Your task to perform on an android device: Look up the best rated hair dryer on Walmart. Image 0: 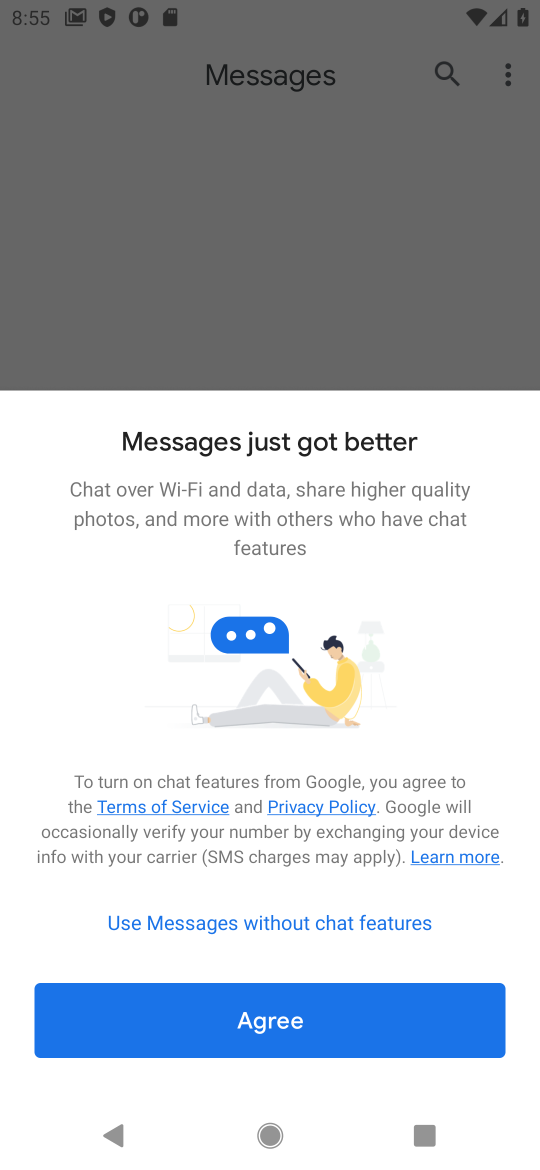
Step 0: press back button
Your task to perform on an android device: Look up the best rated hair dryer on Walmart. Image 1: 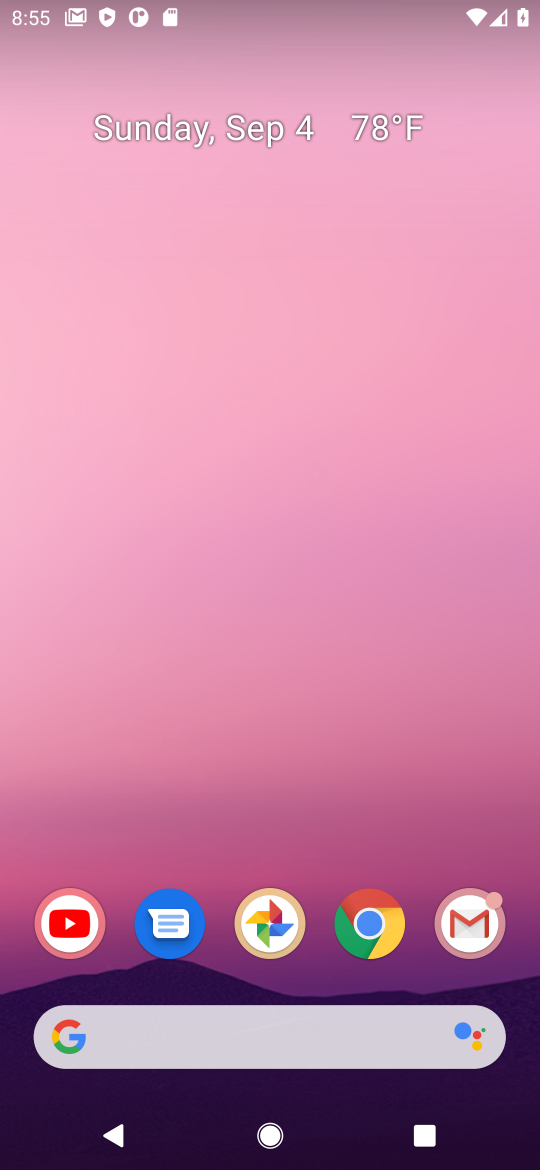
Step 1: click (350, 919)
Your task to perform on an android device: Look up the best rated hair dryer on Walmart. Image 2: 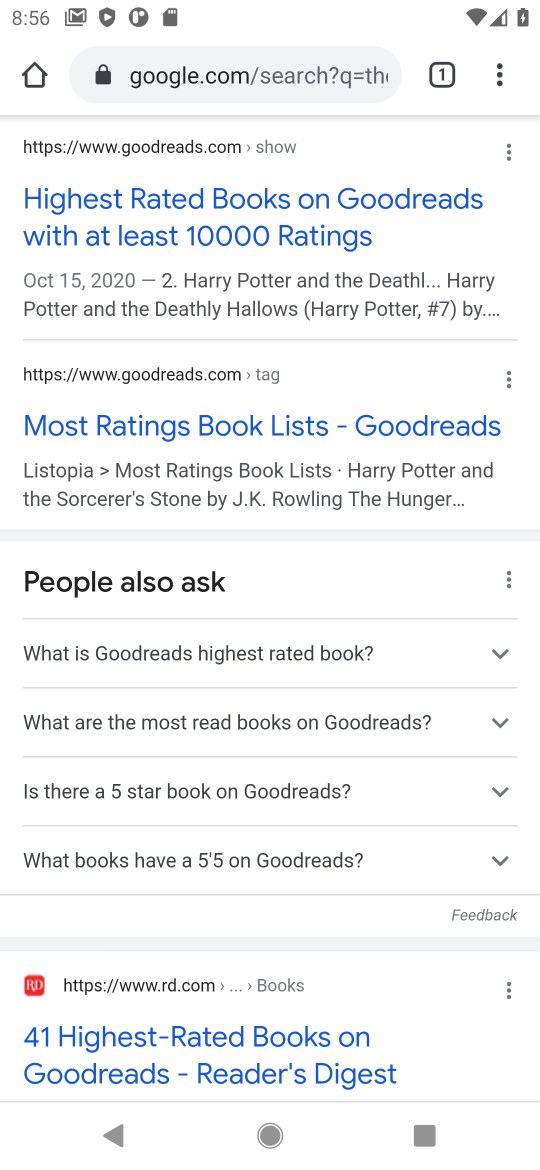
Step 2: click (161, 69)
Your task to perform on an android device: Look up the best rated hair dryer on Walmart. Image 3: 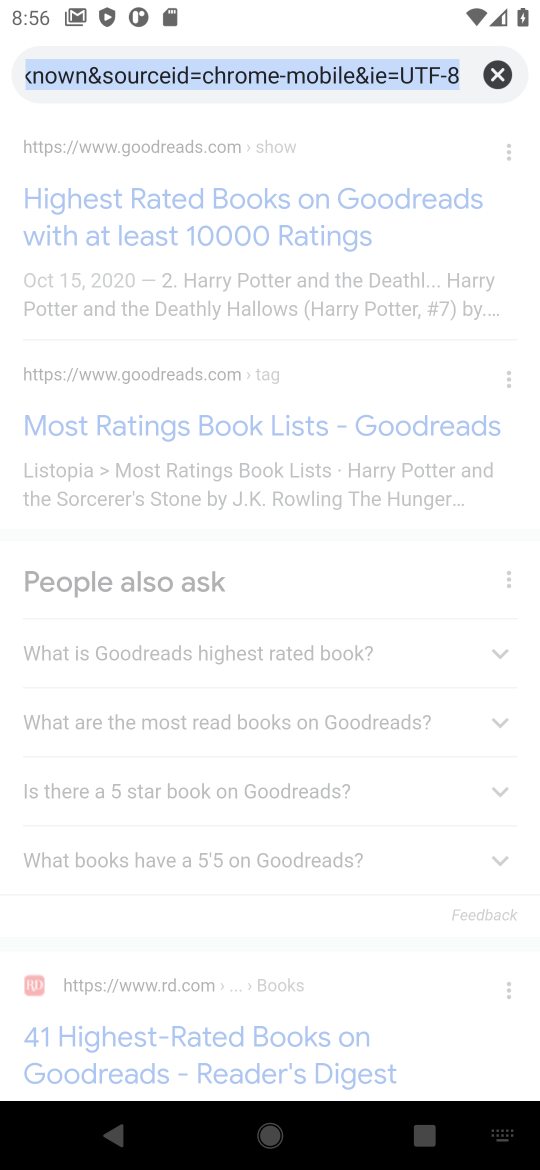
Step 3: click (492, 77)
Your task to perform on an android device: Look up the best rated hair dryer on Walmart. Image 4: 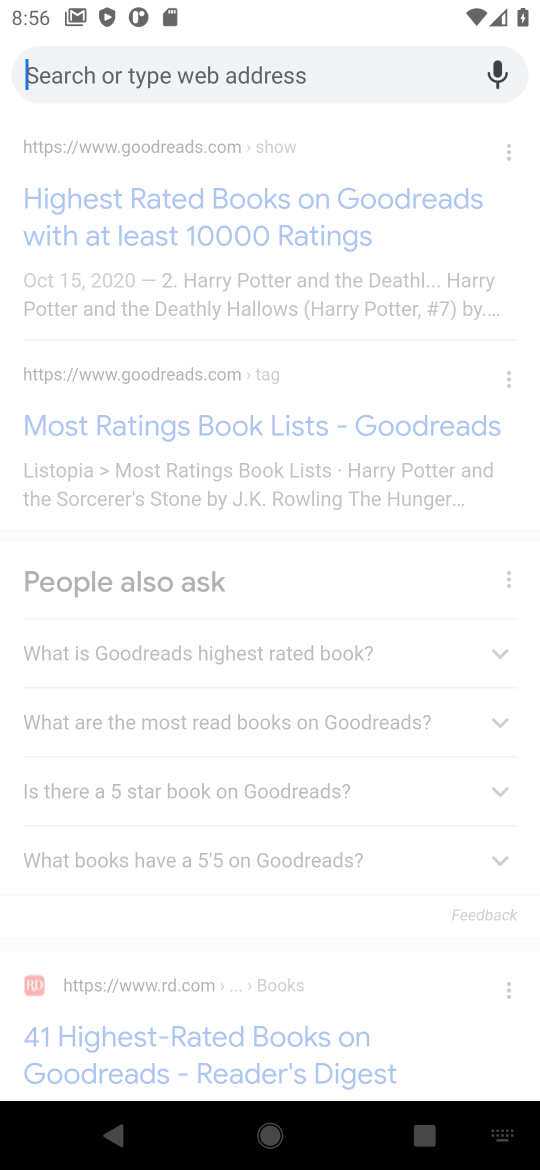
Step 4: type "the best rated hair dryer on Walmart."
Your task to perform on an android device: Look up the best rated hair dryer on Walmart. Image 5: 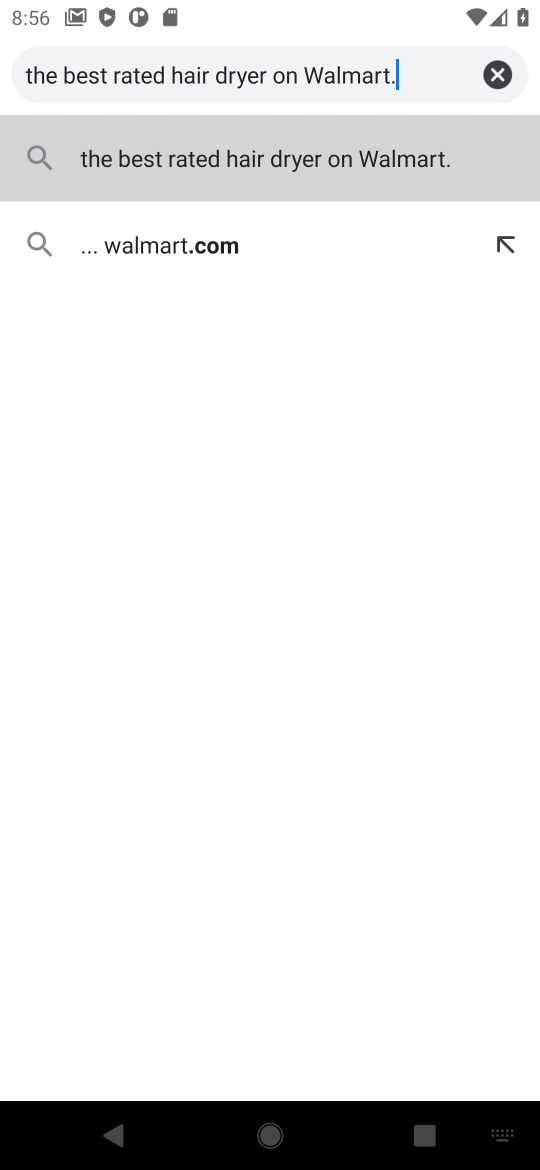
Step 5: click (174, 134)
Your task to perform on an android device: Look up the best rated hair dryer on Walmart. Image 6: 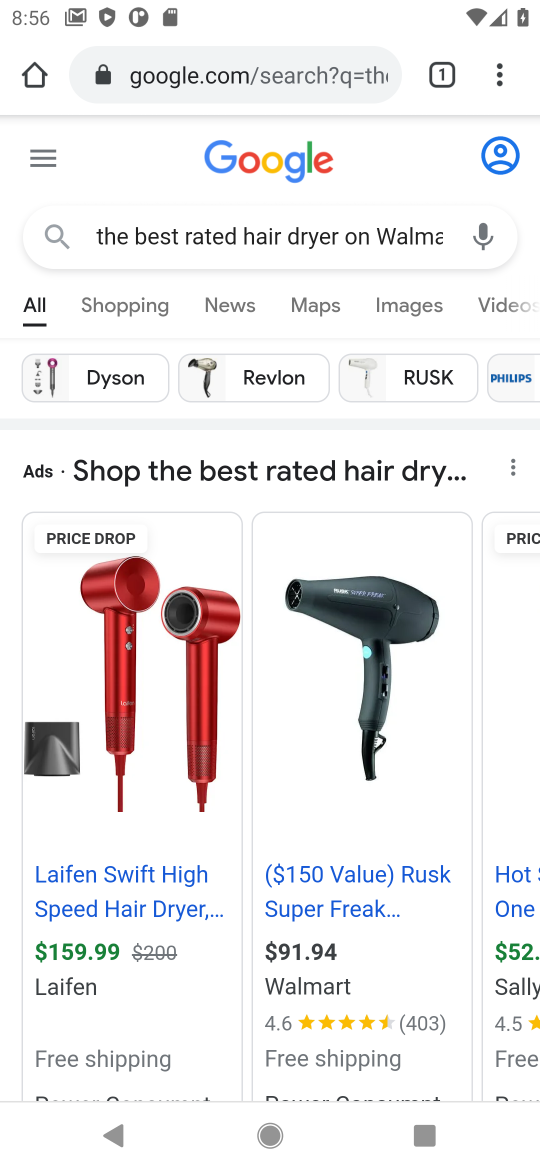
Step 6: drag from (189, 1091) to (127, 512)
Your task to perform on an android device: Look up the best rated hair dryer on Walmart. Image 7: 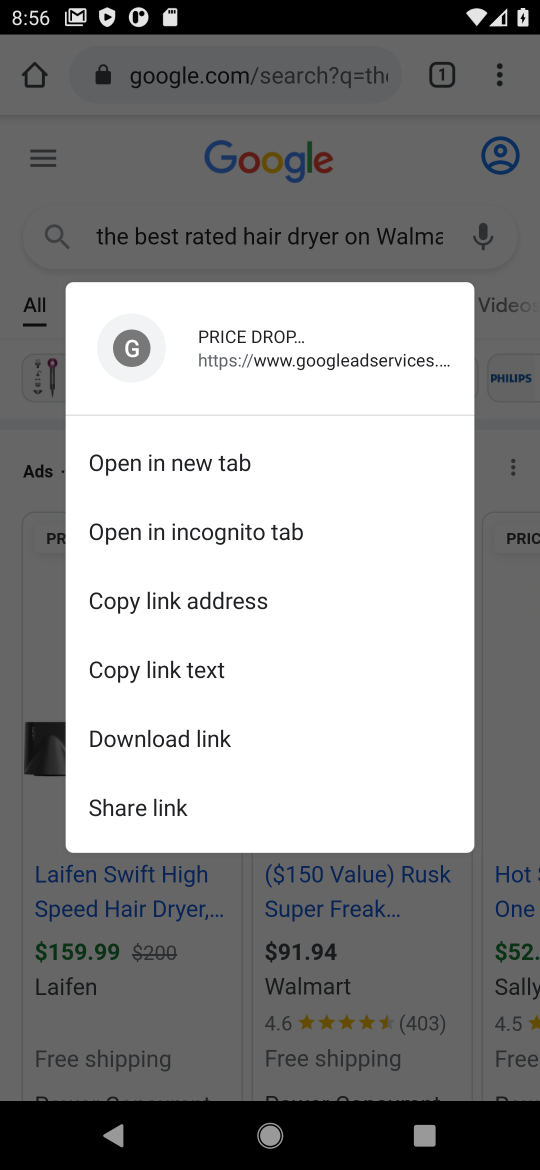
Step 7: click (451, 930)
Your task to perform on an android device: Look up the best rated hair dryer on Walmart. Image 8: 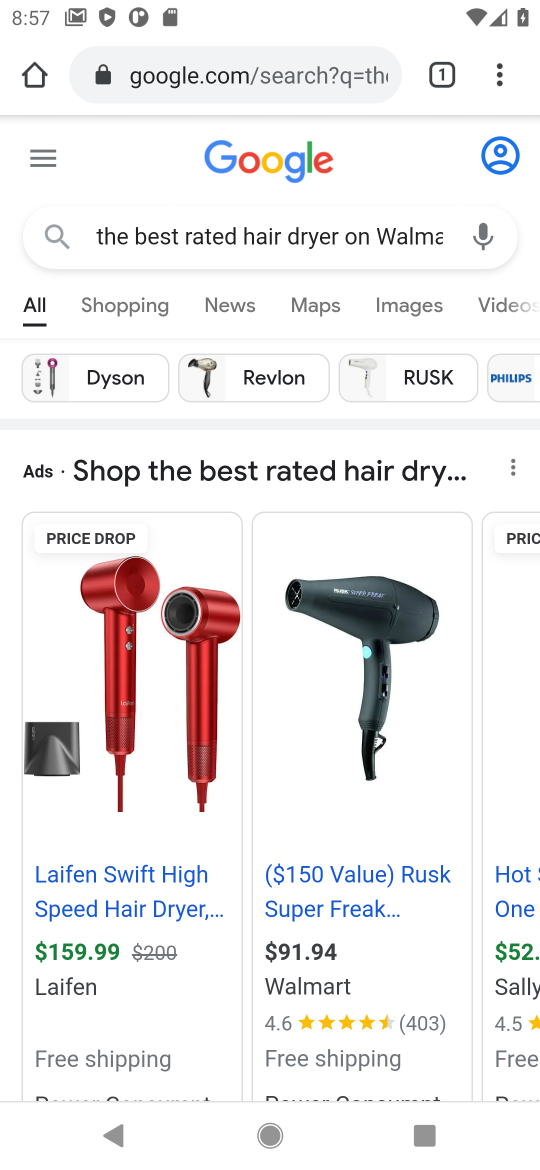
Step 8: task complete